Your task to perform on an android device: add a contact Image 0: 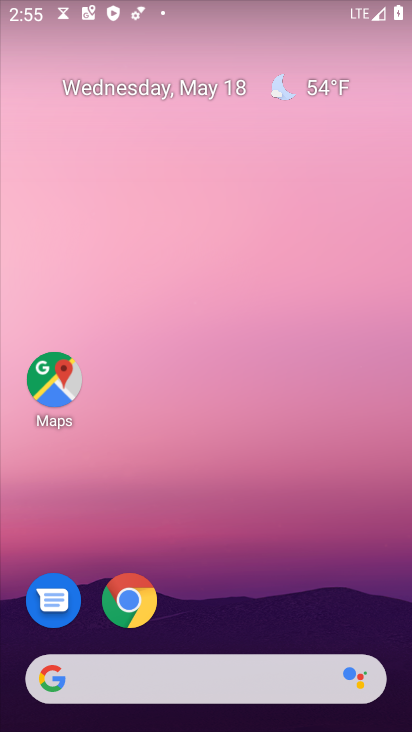
Step 0: drag from (192, 611) to (304, 169)
Your task to perform on an android device: add a contact Image 1: 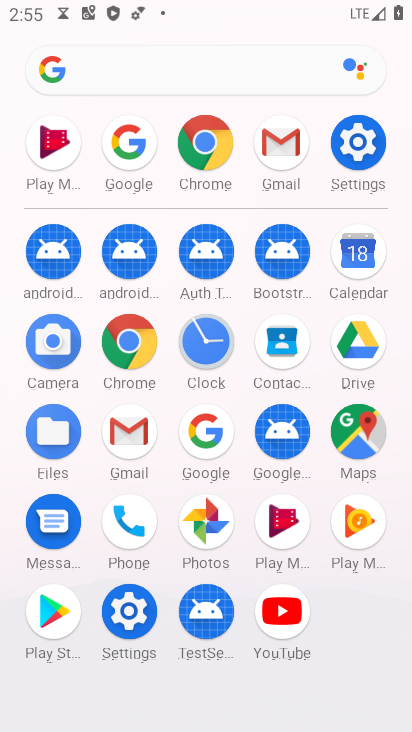
Step 1: click (289, 353)
Your task to perform on an android device: add a contact Image 2: 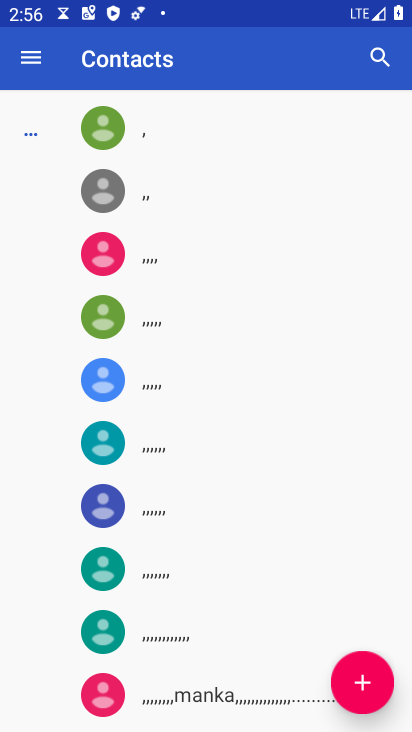
Step 2: click (362, 687)
Your task to perform on an android device: add a contact Image 3: 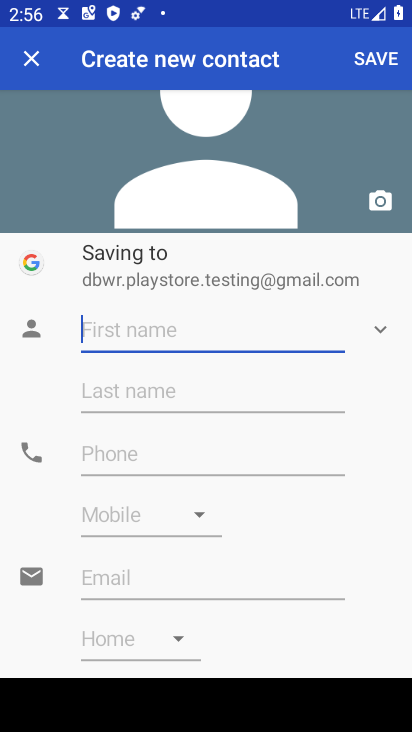
Step 3: type "bytttff"
Your task to perform on an android device: add a contact Image 4: 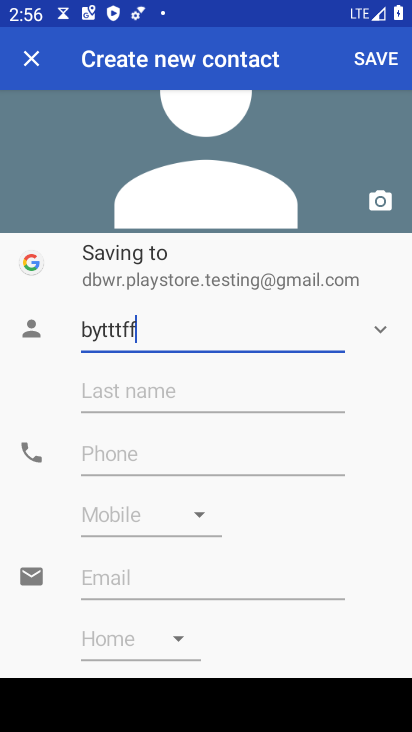
Step 4: click (118, 444)
Your task to perform on an android device: add a contact Image 5: 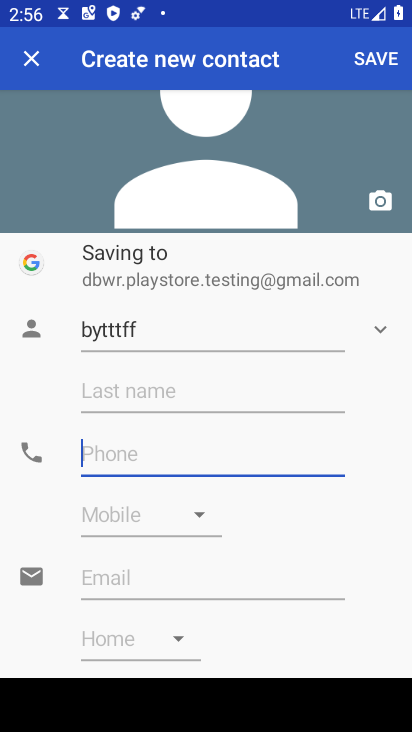
Step 5: type "355466"
Your task to perform on an android device: add a contact Image 6: 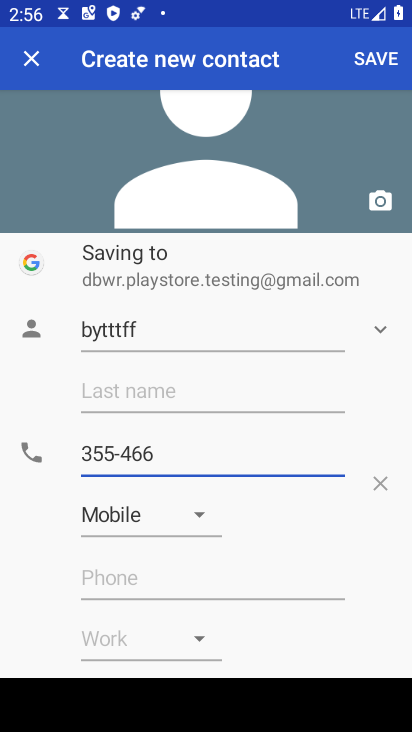
Step 6: click (374, 53)
Your task to perform on an android device: add a contact Image 7: 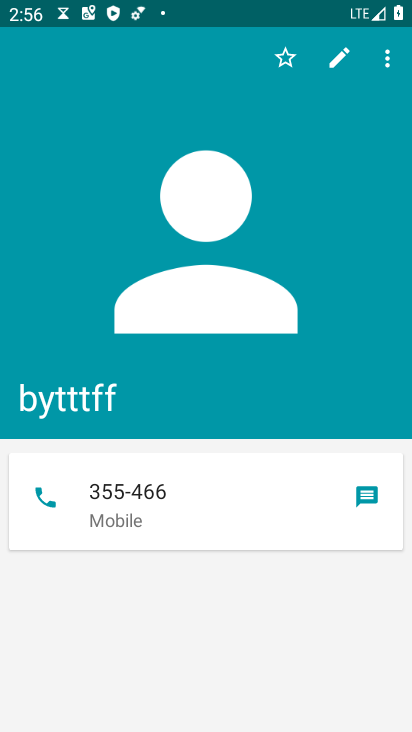
Step 7: task complete